Your task to perform on an android device: check google app version Image 0: 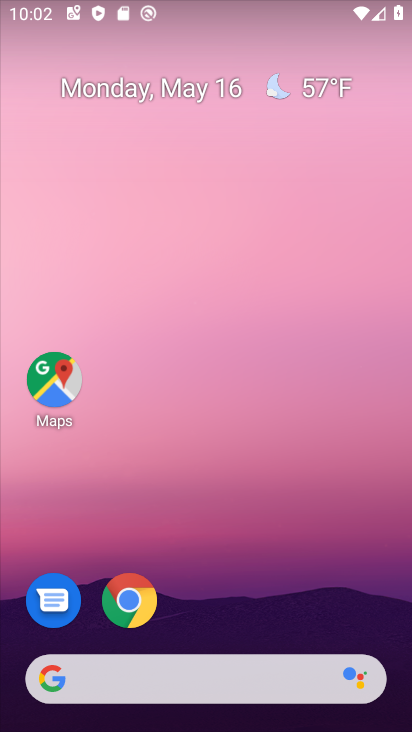
Step 0: drag from (313, 579) to (265, 193)
Your task to perform on an android device: check google app version Image 1: 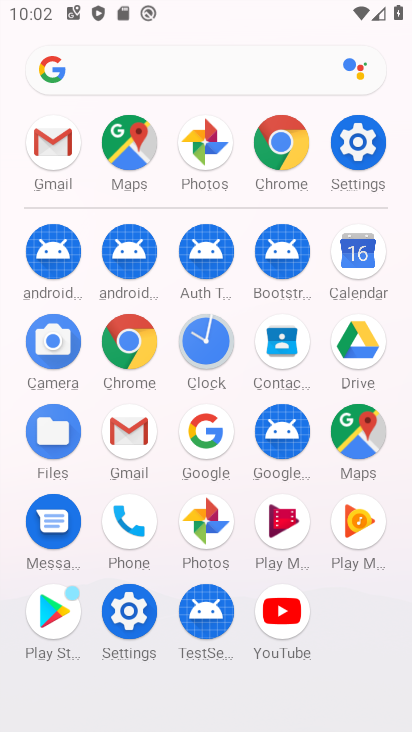
Step 1: click (216, 447)
Your task to perform on an android device: check google app version Image 2: 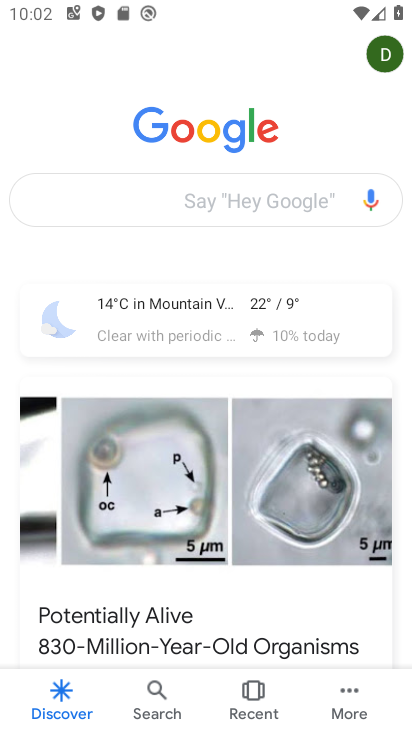
Step 2: click (349, 691)
Your task to perform on an android device: check google app version Image 3: 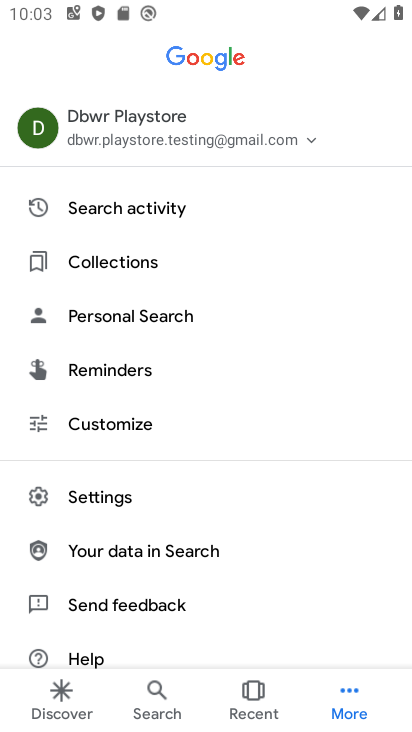
Step 3: click (106, 496)
Your task to perform on an android device: check google app version Image 4: 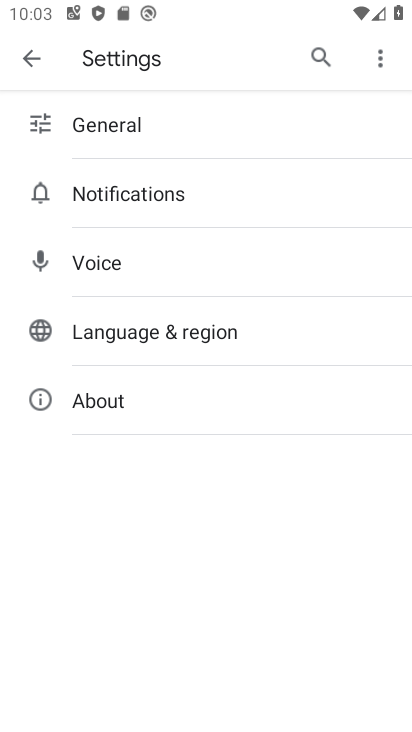
Step 4: click (108, 408)
Your task to perform on an android device: check google app version Image 5: 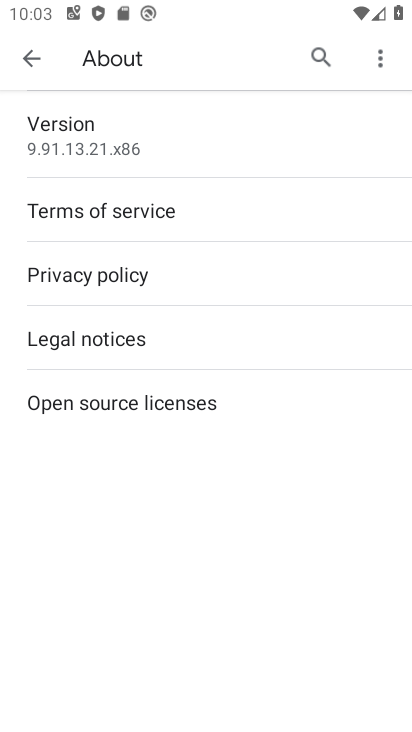
Step 5: task complete